Your task to perform on an android device: Open network settings Image 0: 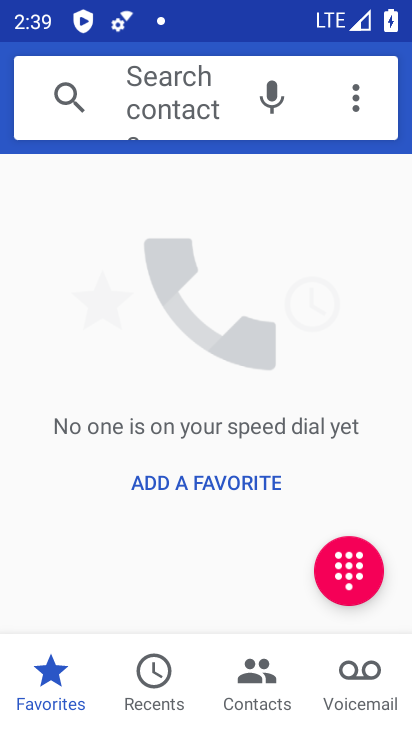
Step 0: press home button
Your task to perform on an android device: Open network settings Image 1: 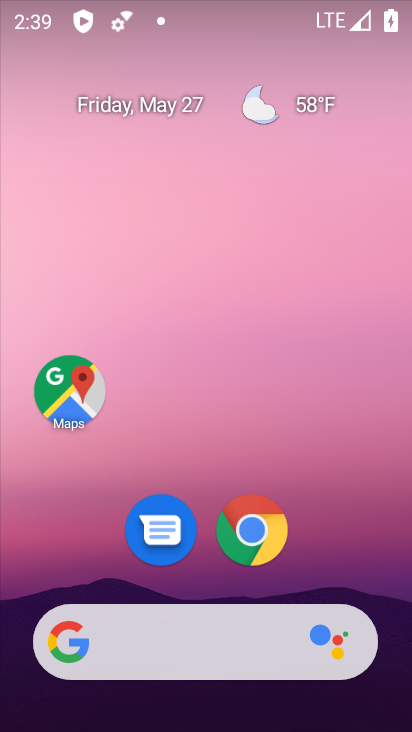
Step 1: drag from (41, 584) to (183, 129)
Your task to perform on an android device: Open network settings Image 2: 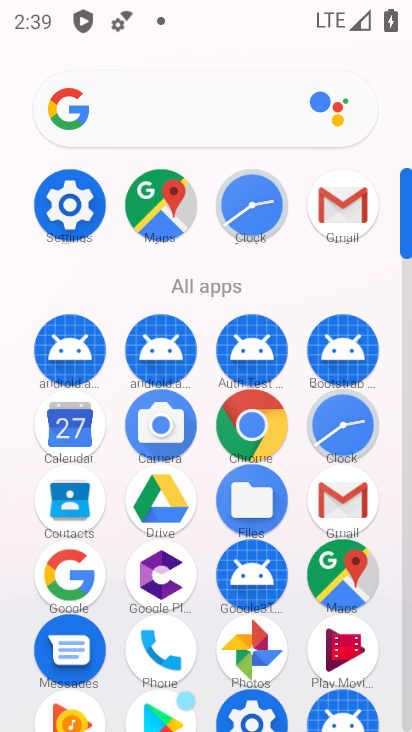
Step 2: drag from (131, 556) to (205, 305)
Your task to perform on an android device: Open network settings Image 3: 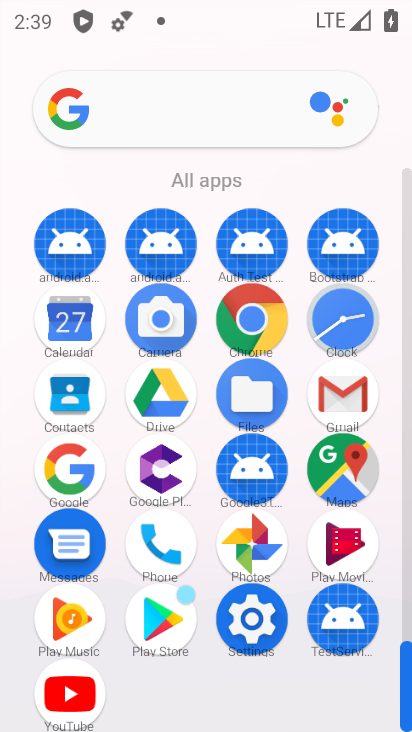
Step 3: click (245, 618)
Your task to perform on an android device: Open network settings Image 4: 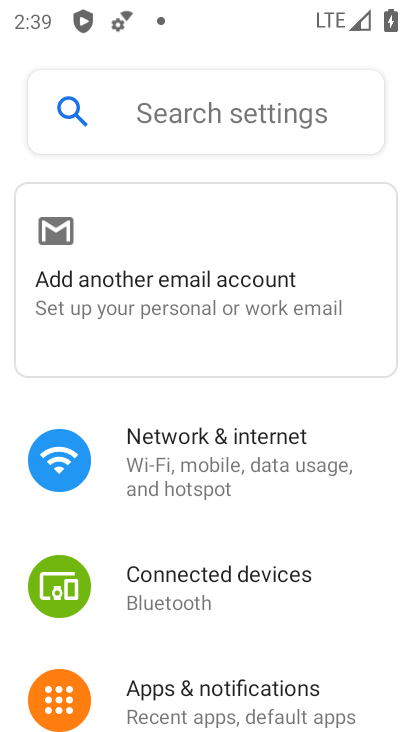
Step 4: click (217, 454)
Your task to perform on an android device: Open network settings Image 5: 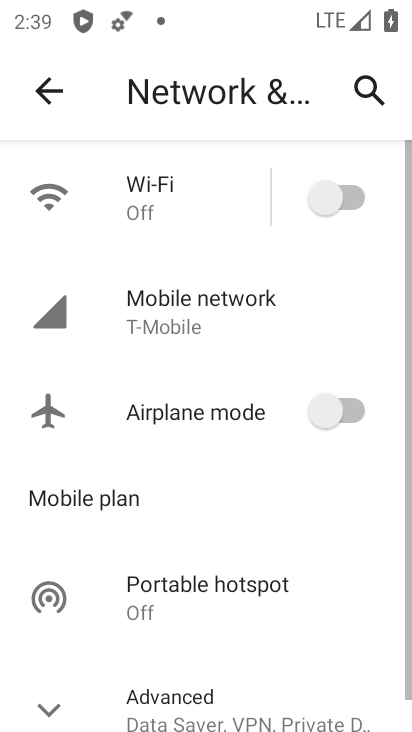
Step 5: click (244, 350)
Your task to perform on an android device: Open network settings Image 6: 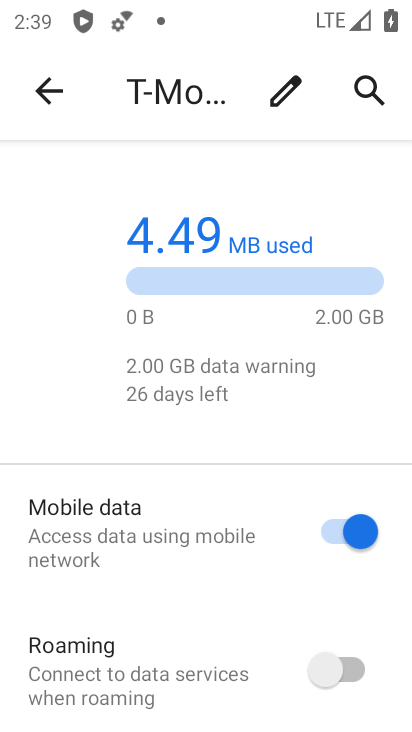
Step 6: task complete